Your task to perform on an android device: Show me the alarms in the clock app Image 0: 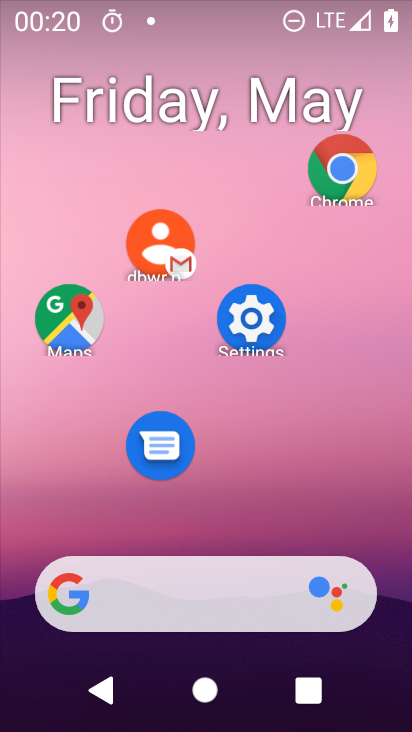
Step 0: click (172, 119)
Your task to perform on an android device: Show me the alarms in the clock app Image 1: 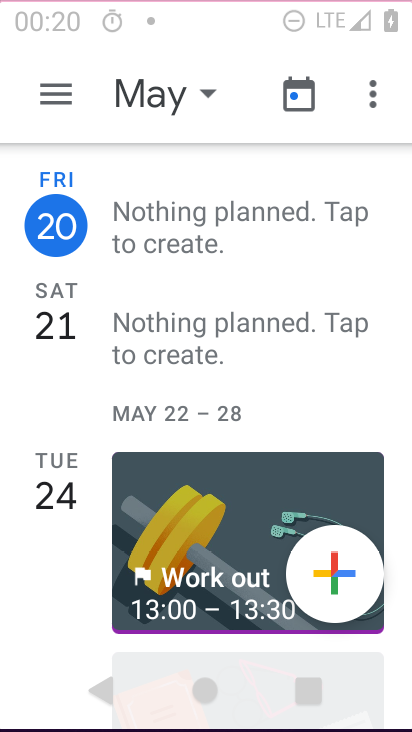
Step 1: drag from (224, 492) to (217, 159)
Your task to perform on an android device: Show me the alarms in the clock app Image 2: 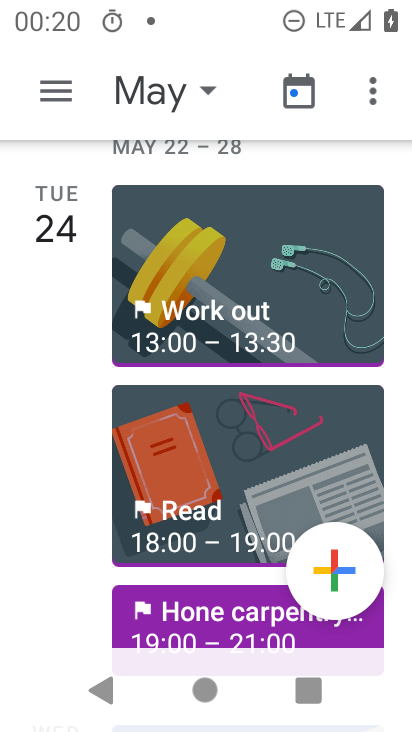
Step 2: click (163, 107)
Your task to perform on an android device: Show me the alarms in the clock app Image 3: 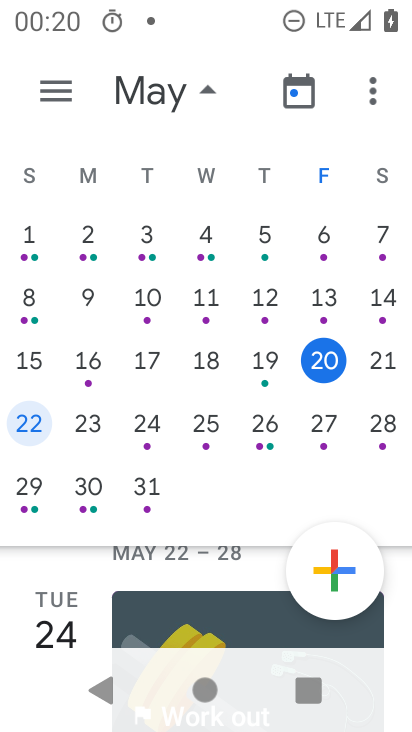
Step 3: press home button
Your task to perform on an android device: Show me the alarms in the clock app Image 4: 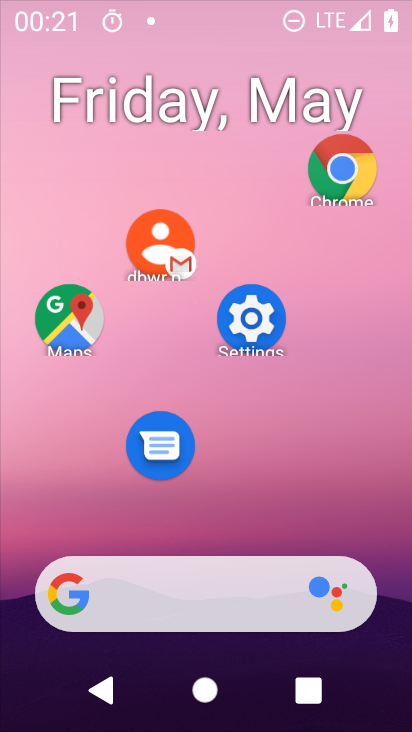
Step 4: drag from (187, 580) to (214, 215)
Your task to perform on an android device: Show me the alarms in the clock app Image 5: 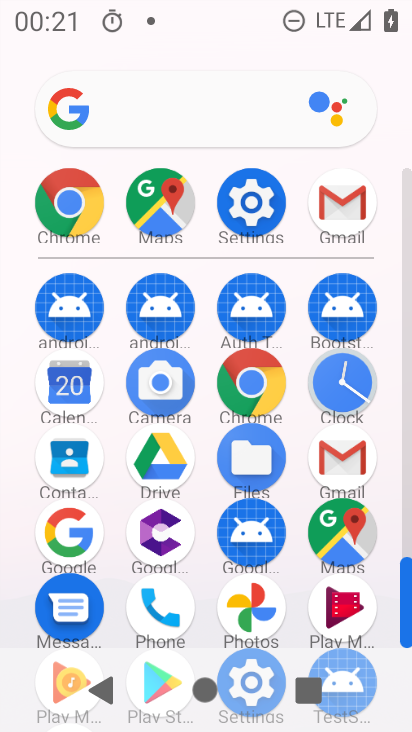
Step 5: click (344, 400)
Your task to perform on an android device: Show me the alarms in the clock app Image 6: 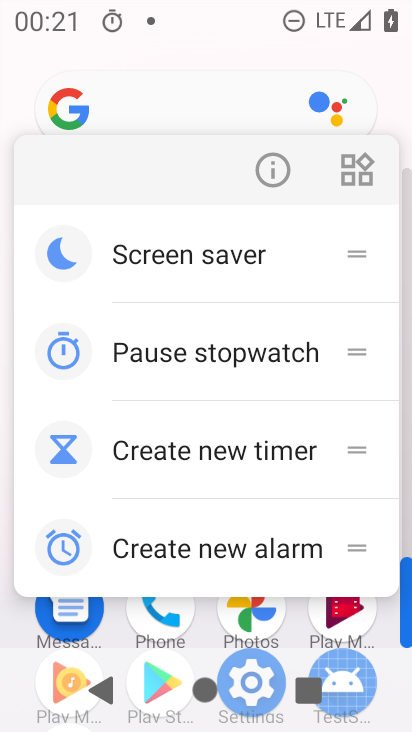
Step 6: click (274, 169)
Your task to perform on an android device: Show me the alarms in the clock app Image 7: 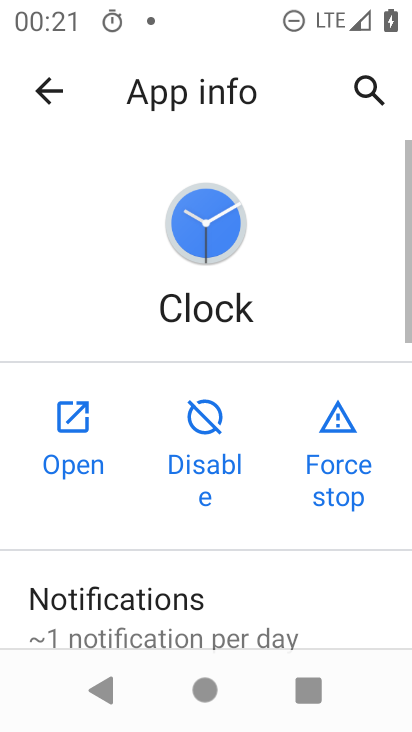
Step 7: click (66, 412)
Your task to perform on an android device: Show me the alarms in the clock app Image 8: 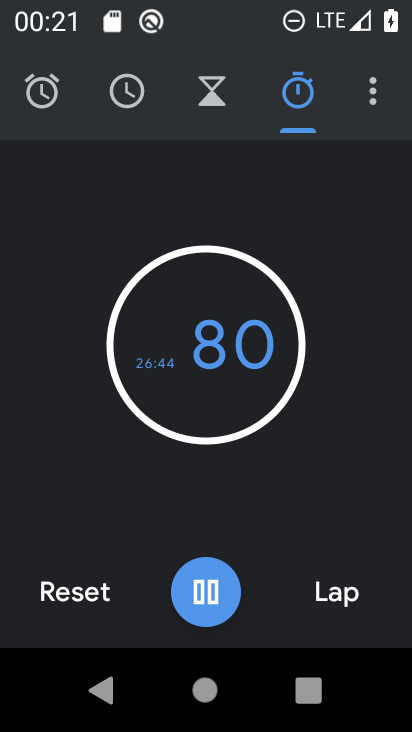
Step 8: click (363, 96)
Your task to perform on an android device: Show me the alarms in the clock app Image 9: 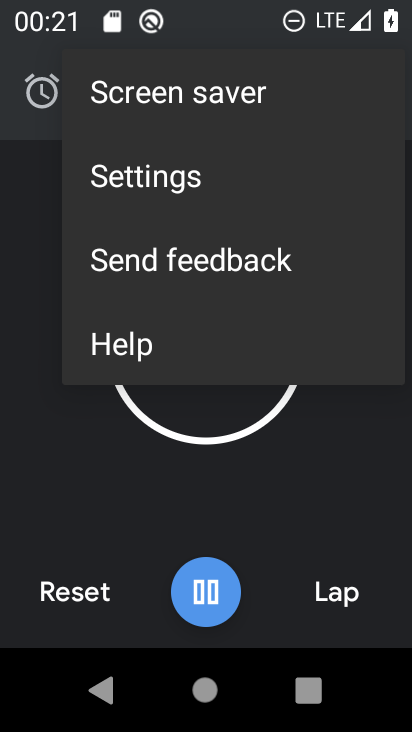
Step 9: click (36, 110)
Your task to perform on an android device: Show me the alarms in the clock app Image 10: 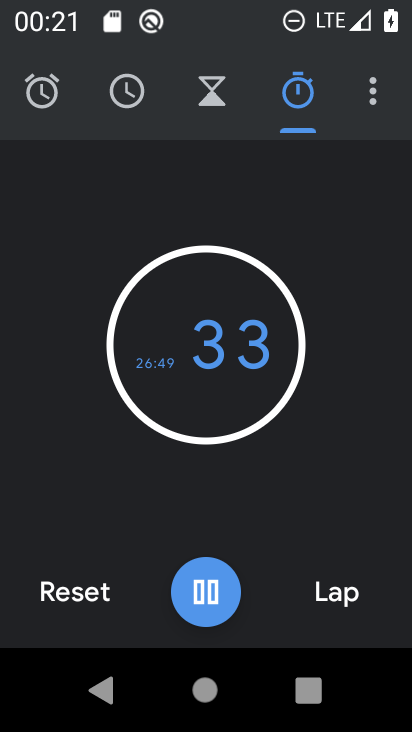
Step 10: click (37, 107)
Your task to perform on an android device: Show me the alarms in the clock app Image 11: 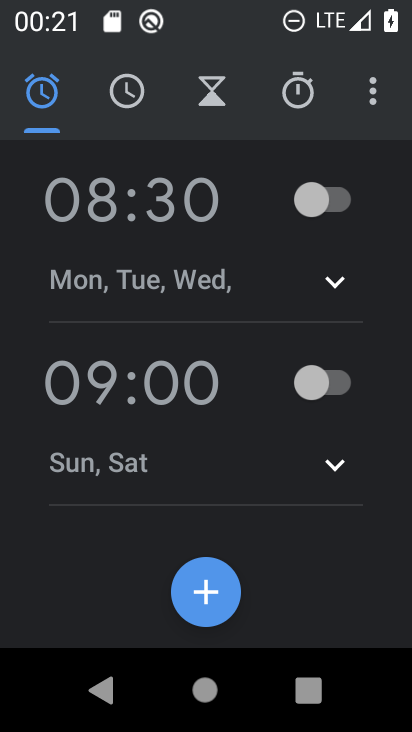
Step 11: task complete